Your task to perform on an android device: clear history in the chrome app Image 0: 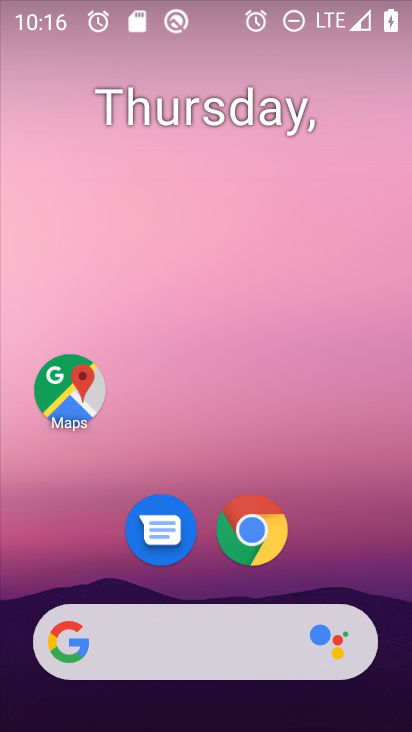
Step 0: drag from (350, 531) to (281, 2)
Your task to perform on an android device: clear history in the chrome app Image 1: 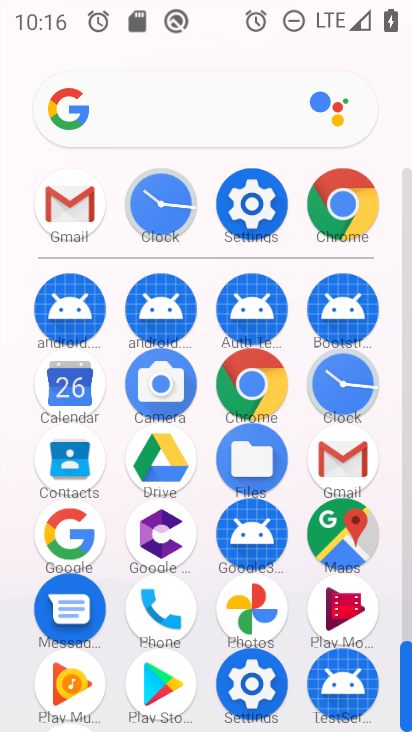
Step 1: drag from (19, 548) to (21, 260)
Your task to perform on an android device: clear history in the chrome app Image 2: 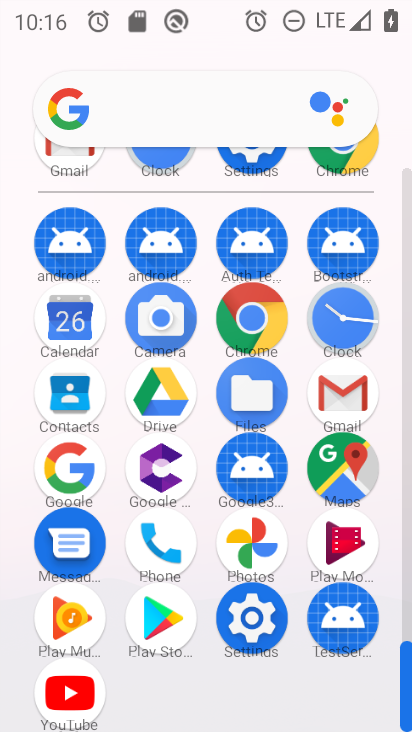
Step 2: click (247, 319)
Your task to perform on an android device: clear history in the chrome app Image 3: 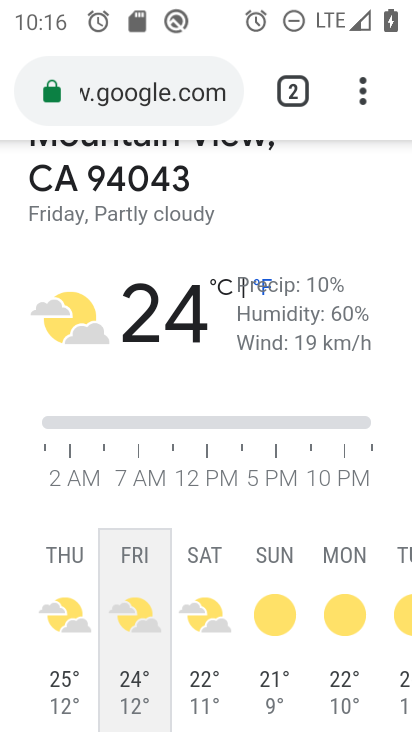
Step 3: drag from (355, 92) to (127, 505)
Your task to perform on an android device: clear history in the chrome app Image 4: 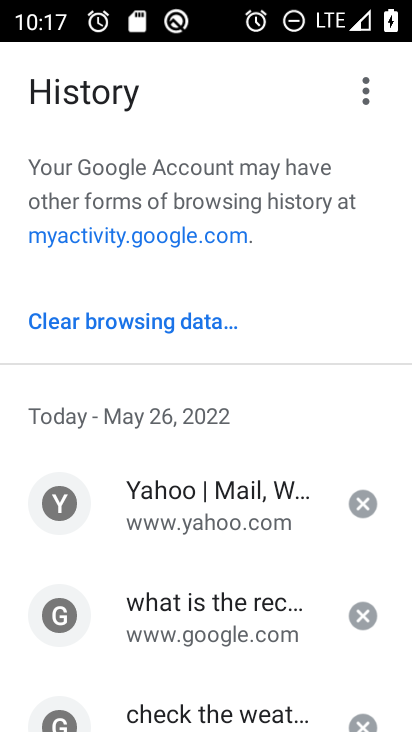
Step 4: click (164, 325)
Your task to perform on an android device: clear history in the chrome app Image 5: 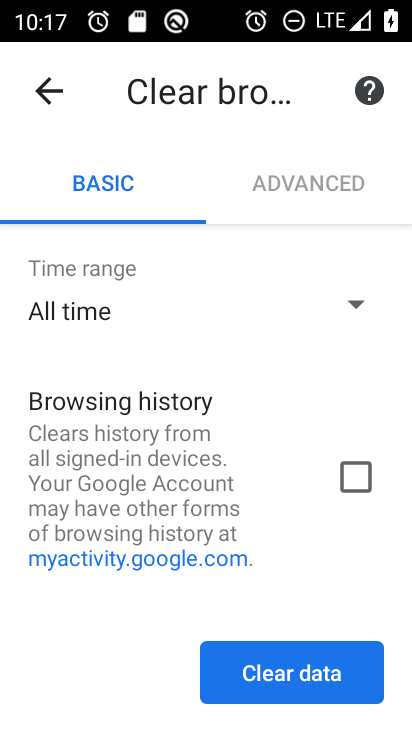
Step 5: drag from (79, 524) to (101, 240)
Your task to perform on an android device: clear history in the chrome app Image 6: 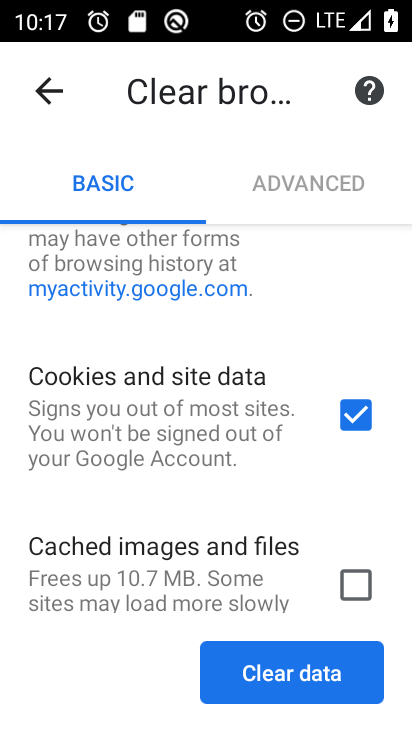
Step 6: drag from (220, 308) to (197, 480)
Your task to perform on an android device: clear history in the chrome app Image 7: 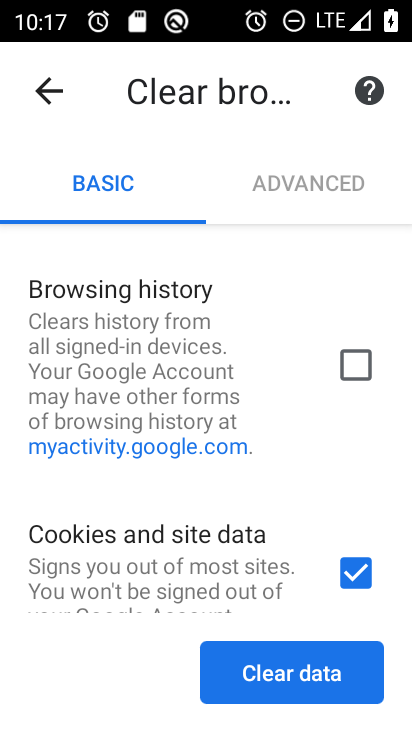
Step 7: click (351, 343)
Your task to perform on an android device: clear history in the chrome app Image 8: 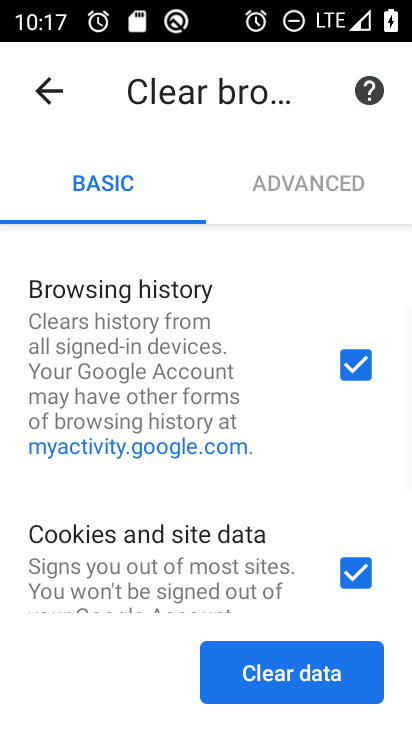
Step 8: click (347, 570)
Your task to perform on an android device: clear history in the chrome app Image 9: 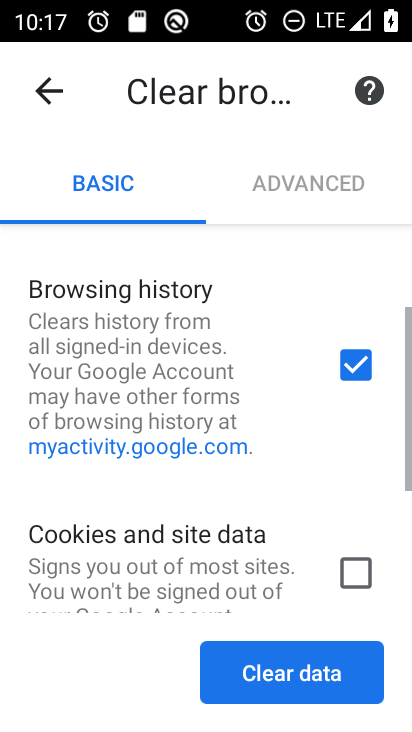
Step 9: click (269, 676)
Your task to perform on an android device: clear history in the chrome app Image 10: 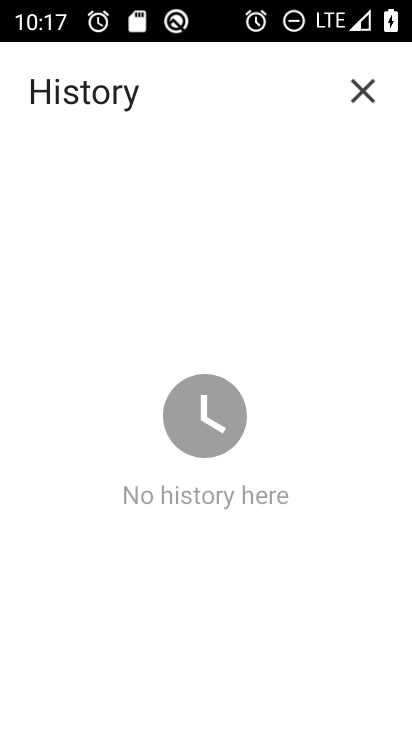
Step 10: task complete